Your task to perform on an android device: check out phone information Image 0: 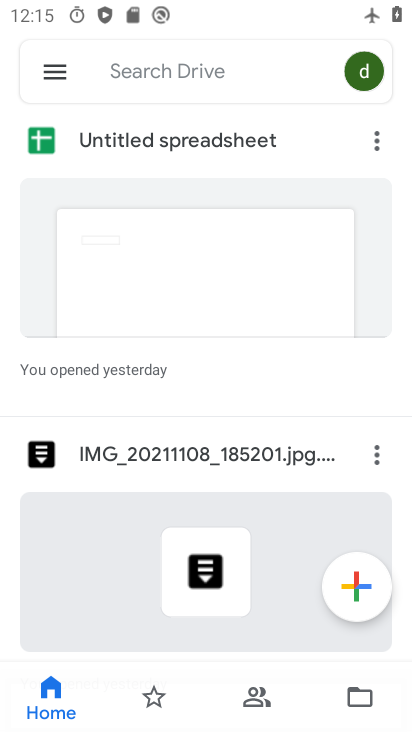
Step 0: press back button
Your task to perform on an android device: check out phone information Image 1: 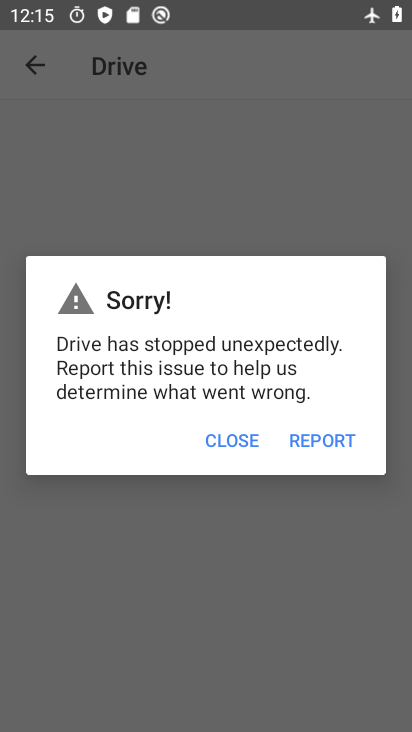
Step 1: click (236, 439)
Your task to perform on an android device: check out phone information Image 2: 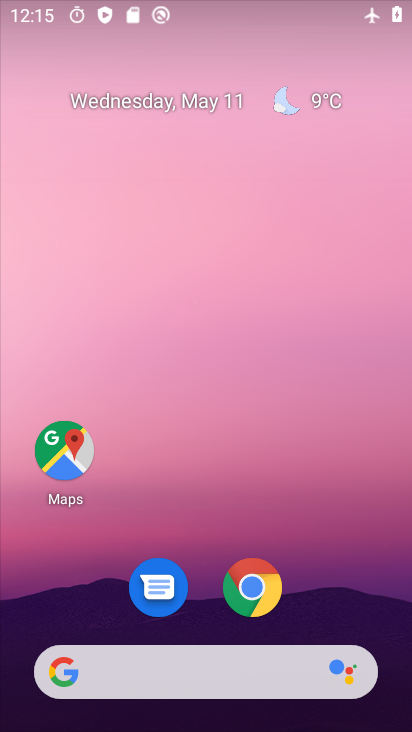
Step 2: drag from (339, 600) to (62, 32)
Your task to perform on an android device: check out phone information Image 3: 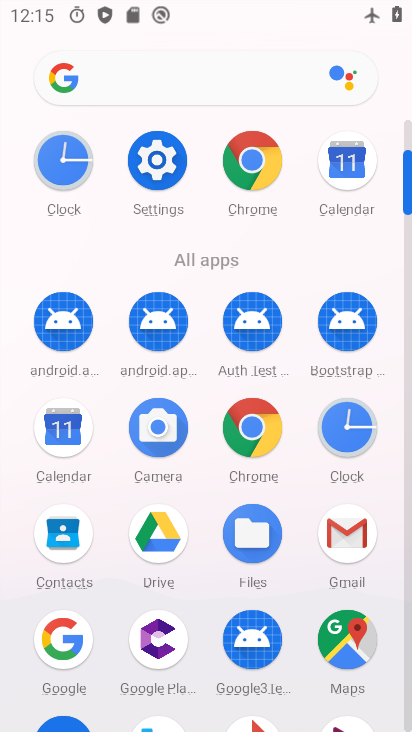
Step 3: drag from (201, 576) to (189, 124)
Your task to perform on an android device: check out phone information Image 4: 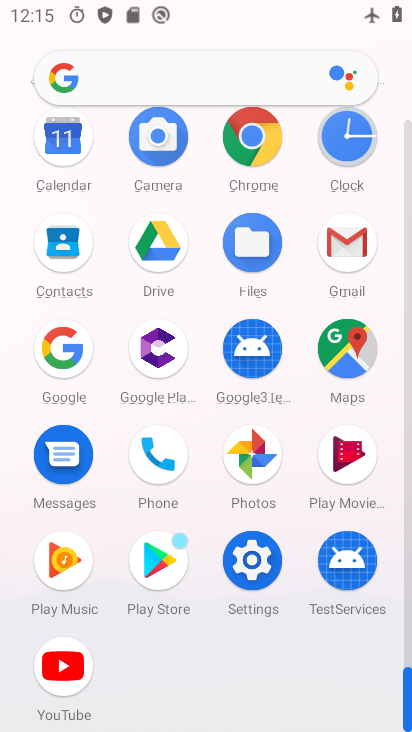
Step 4: drag from (204, 396) to (206, 127)
Your task to perform on an android device: check out phone information Image 5: 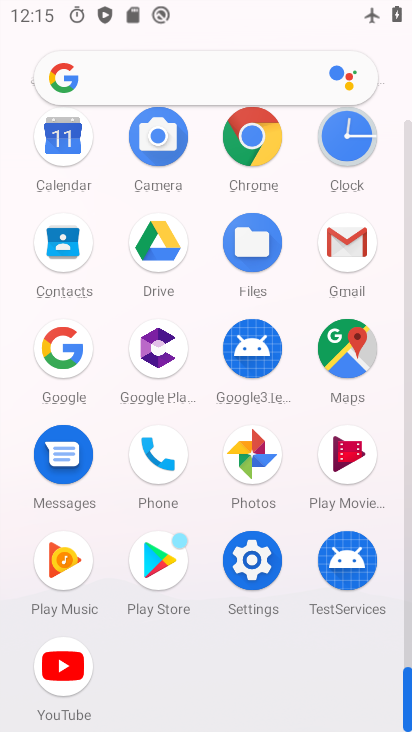
Step 5: drag from (200, 205) to (205, 601)
Your task to perform on an android device: check out phone information Image 6: 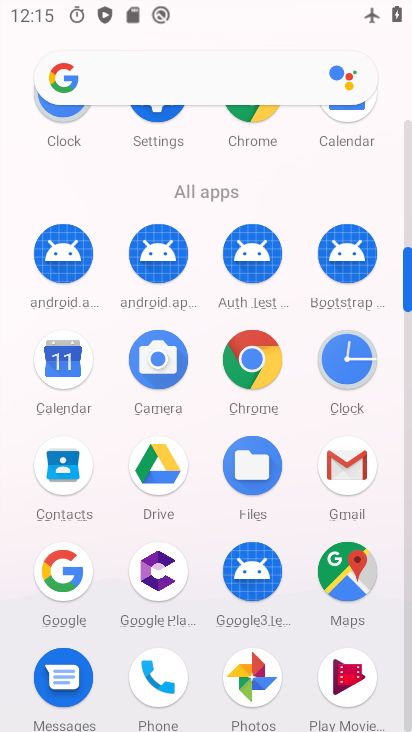
Step 6: drag from (210, 269) to (209, 722)
Your task to perform on an android device: check out phone information Image 7: 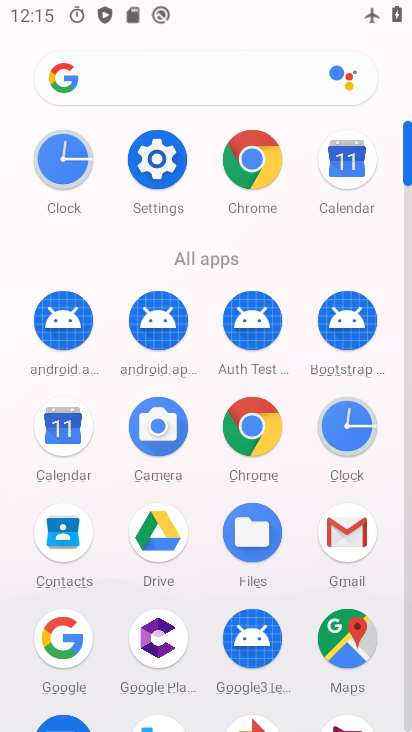
Step 7: click (151, 176)
Your task to perform on an android device: check out phone information Image 8: 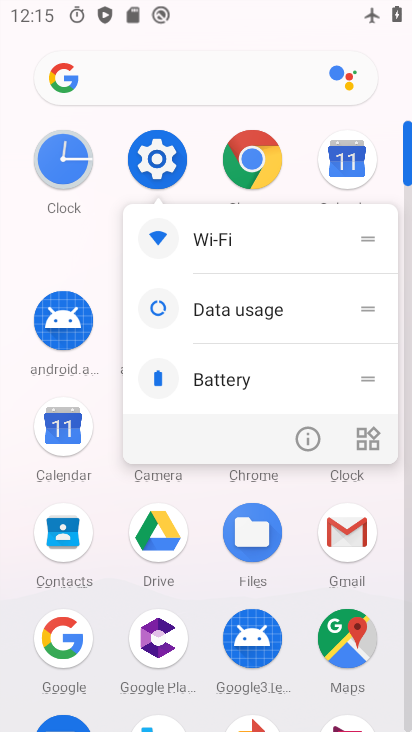
Step 8: click (161, 169)
Your task to perform on an android device: check out phone information Image 9: 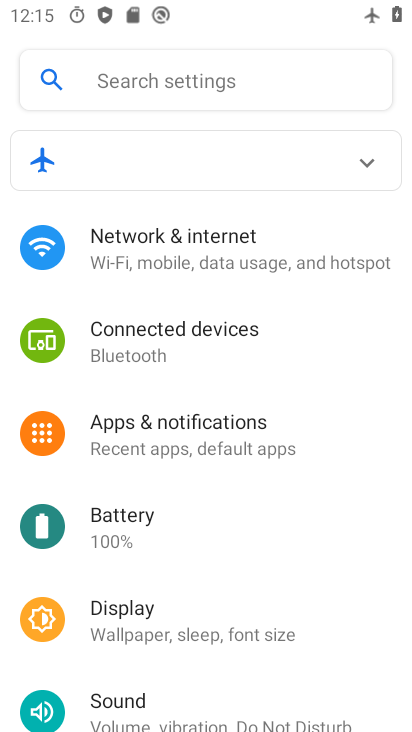
Step 9: drag from (216, 511) to (145, 138)
Your task to perform on an android device: check out phone information Image 10: 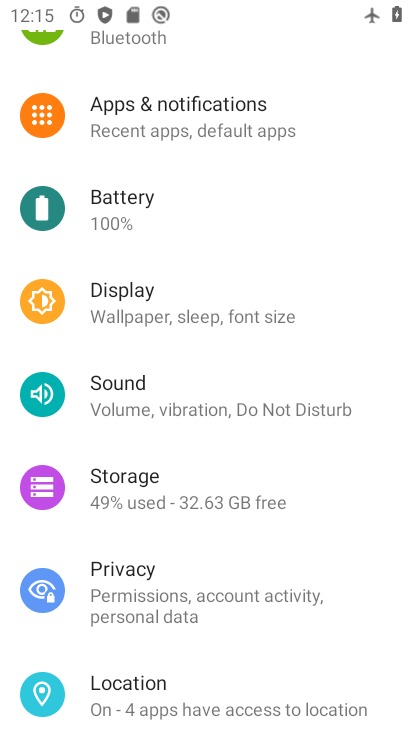
Step 10: drag from (134, 512) to (132, 212)
Your task to perform on an android device: check out phone information Image 11: 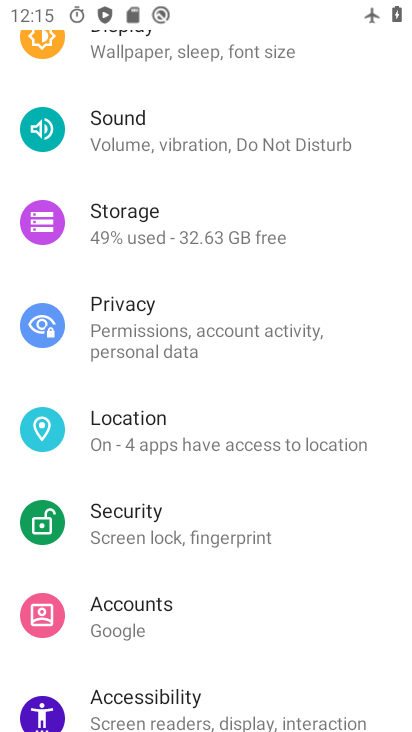
Step 11: drag from (188, 620) to (185, 312)
Your task to perform on an android device: check out phone information Image 12: 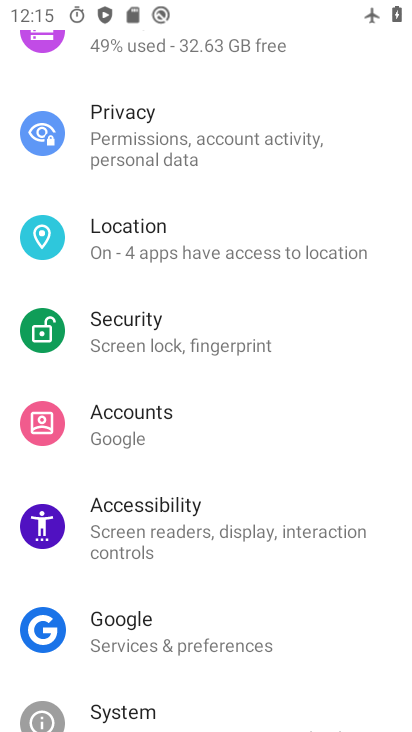
Step 12: drag from (186, 497) to (150, 168)
Your task to perform on an android device: check out phone information Image 13: 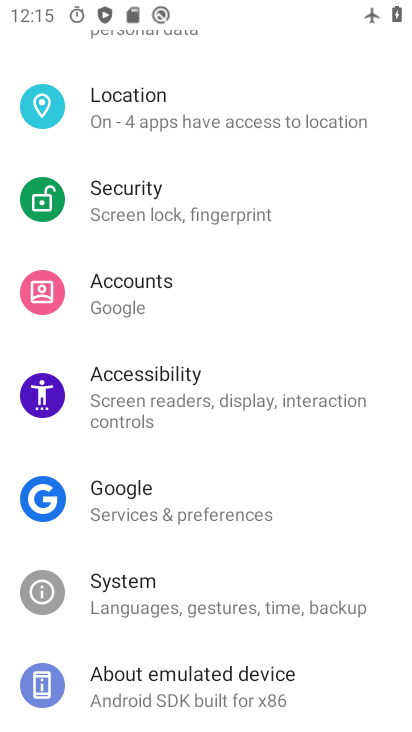
Step 13: click (130, 115)
Your task to perform on an android device: check out phone information Image 14: 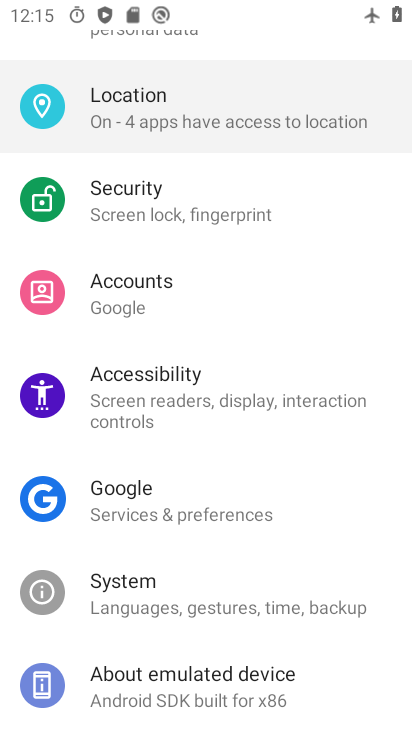
Step 14: click (133, 112)
Your task to perform on an android device: check out phone information Image 15: 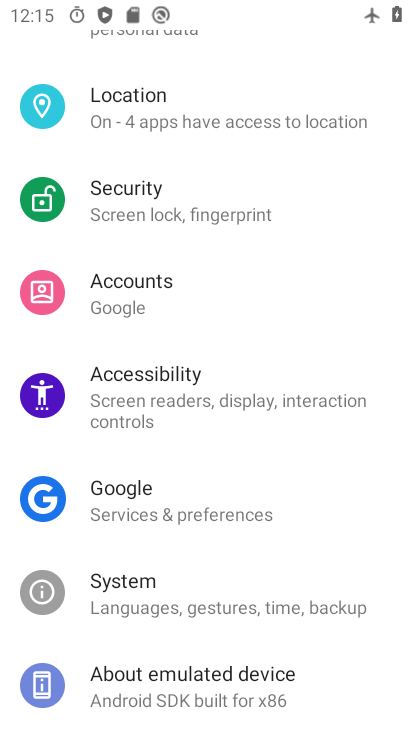
Step 15: click (133, 112)
Your task to perform on an android device: check out phone information Image 16: 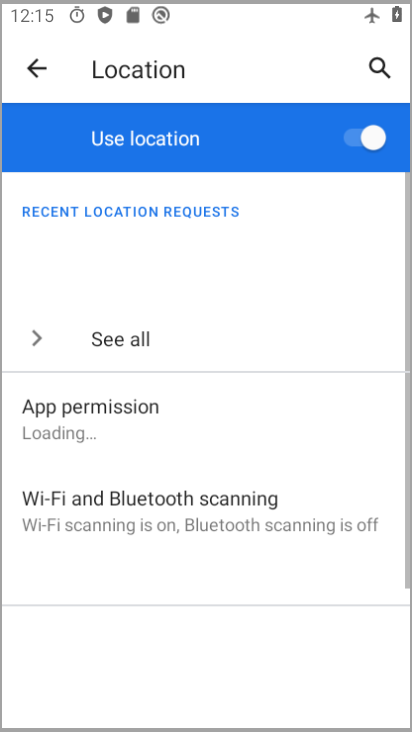
Step 16: click (133, 112)
Your task to perform on an android device: check out phone information Image 17: 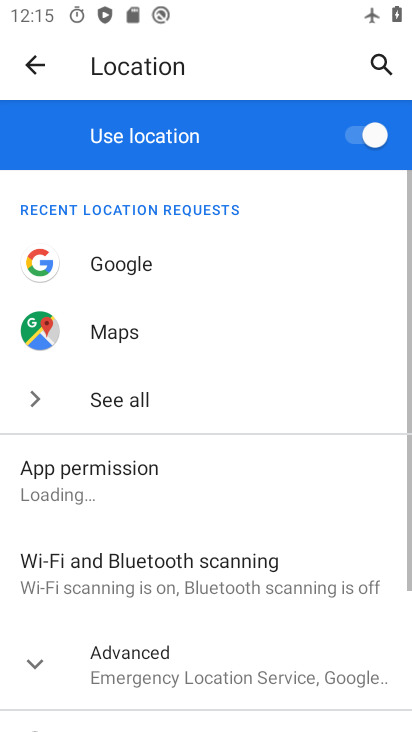
Step 17: drag from (190, 566) to (186, 81)
Your task to perform on an android device: check out phone information Image 18: 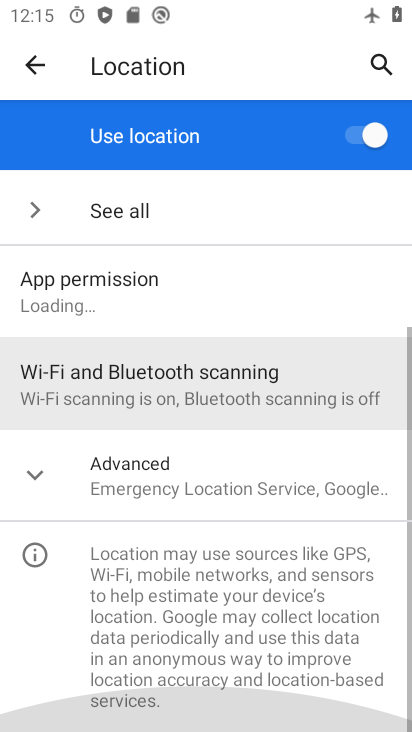
Step 18: click (214, 222)
Your task to perform on an android device: check out phone information Image 19: 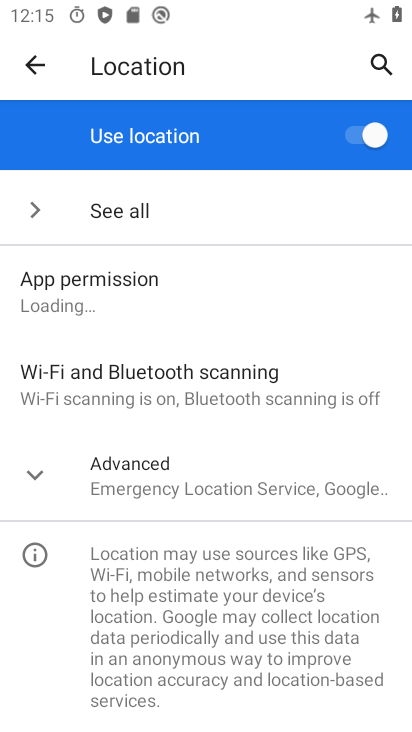
Step 19: drag from (164, 534) to (188, 602)
Your task to perform on an android device: check out phone information Image 20: 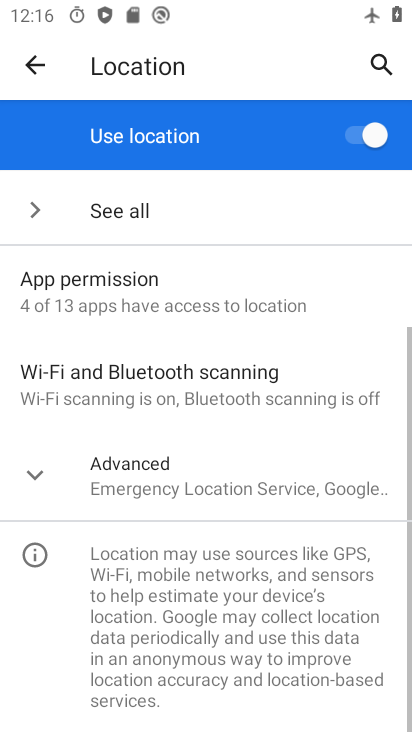
Step 20: click (113, 291)
Your task to perform on an android device: check out phone information Image 21: 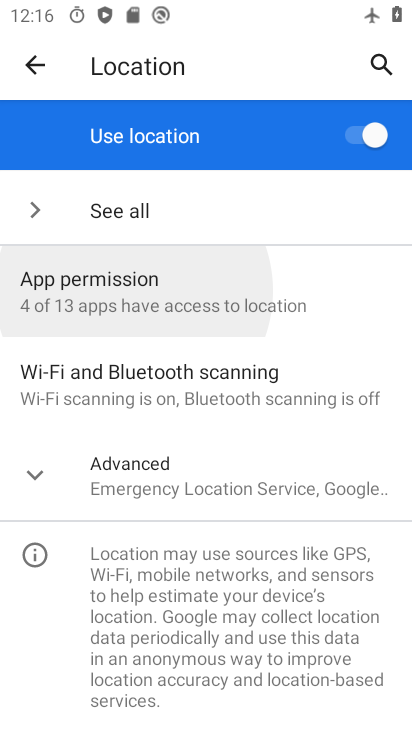
Step 21: click (113, 291)
Your task to perform on an android device: check out phone information Image 22: 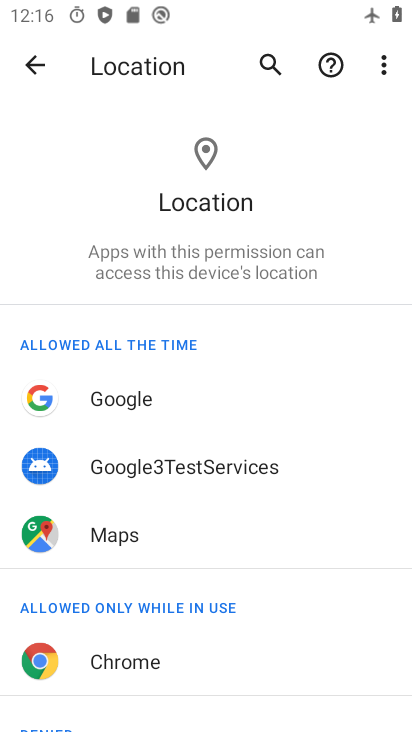
Step 22: task complete